Your task to perform on an android device: Show me productivity apps on the Play Store Image 0: 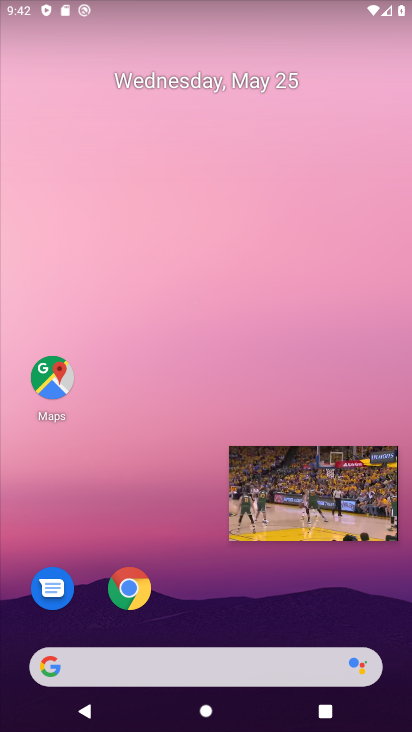
Step 0: drag from (180, 622) to (197, 74)
Your task to perform on an android device: Show me productivity apps on the Play Store Image 1: 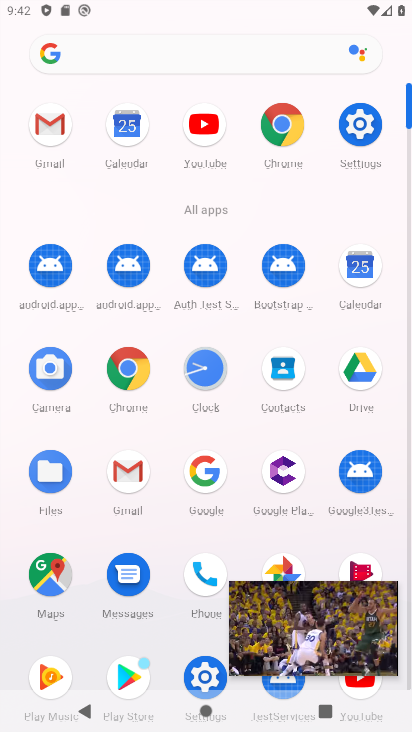
Step 1: click (126, 670)
Your task to perform on an android device: Show me productivity apps on the Play Store Image 2: 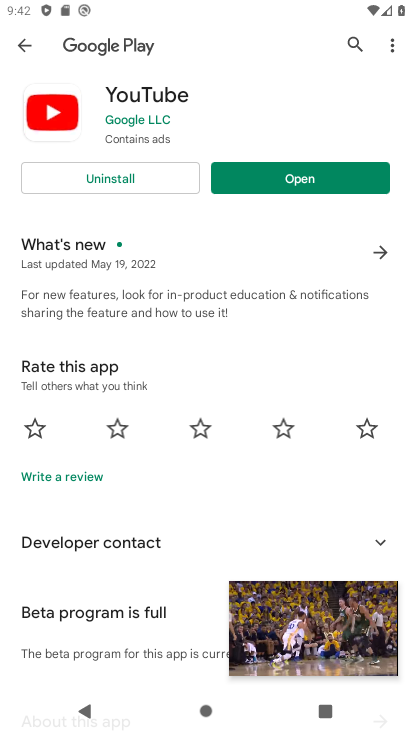
Step 2: click (33, 41)
Your task to perform on an android device: Show me productivity apps on the Play Store Image 3: 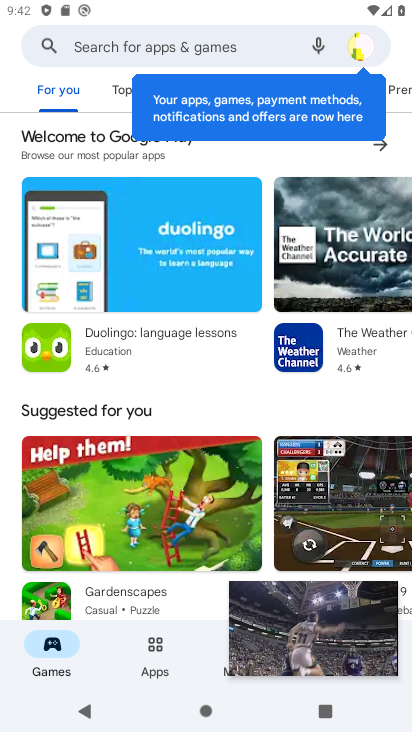
Step 3: click (155, 664)
Your task to perform on an android device: Show me productivity apps on the Play Store Image 4: 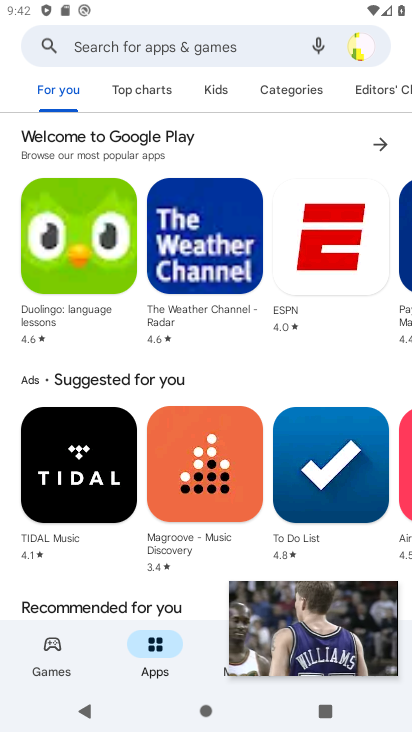
Step 4: click (300, 84)
Your task to perform on an android device: Show me productivity apps on the Play Store Image 5: 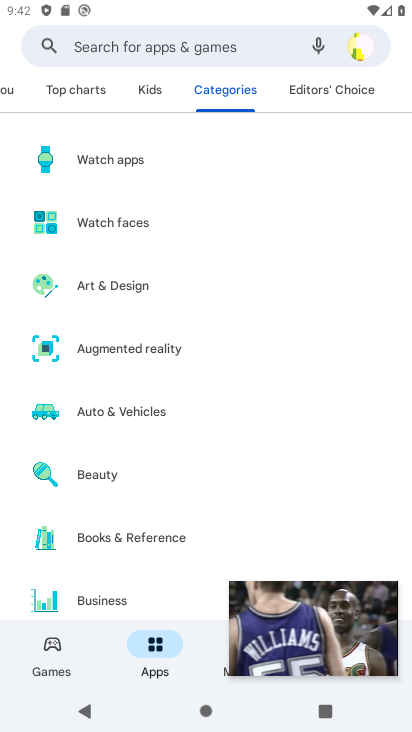
Step 5: drag from (157, 601) to (171, 181)
Your task to perform on an android device: Show me productivity apps on the Play Store Image 6: 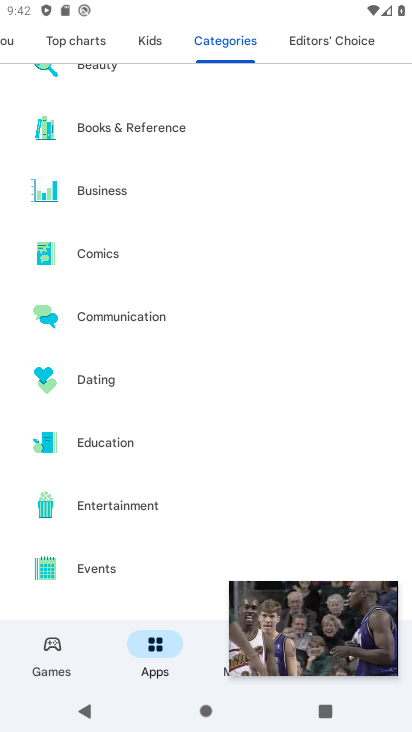
Step 6: drag from (163, 519) to (198, 176)
Your task to perform on an android device: Show me productivity apps on the Play Store Image 7: 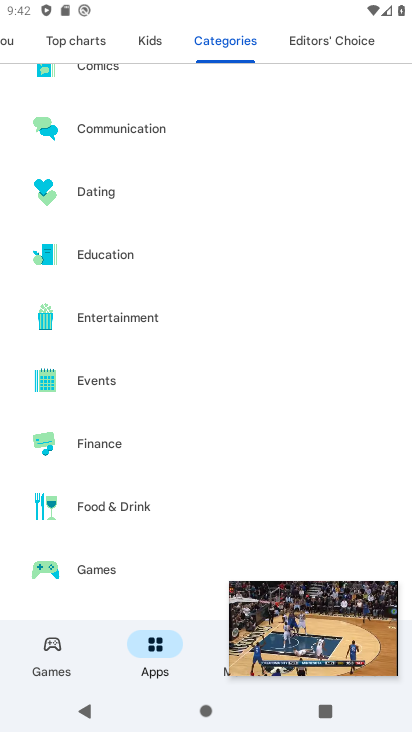
Step 7: drag from (122, 539) to (152, 111)
Your task to perform on an android device: Show me productivity apps on the Play Store Image 8: 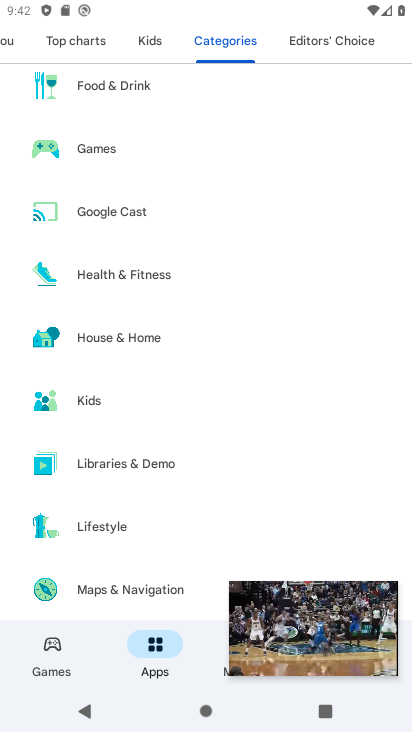
Step 8: drag from (104, 549) to (143, 230)
Your task to perform on an android device: Show me productivity apps on the Play Store Image 9: 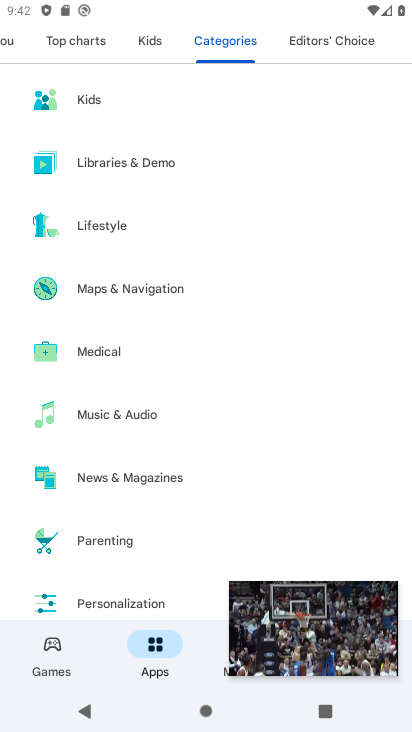
Step 9: drag from (99, 565) to (99, 248)
Your task to perform on an android device: Show me productivity apps on the Play Store Image 10: 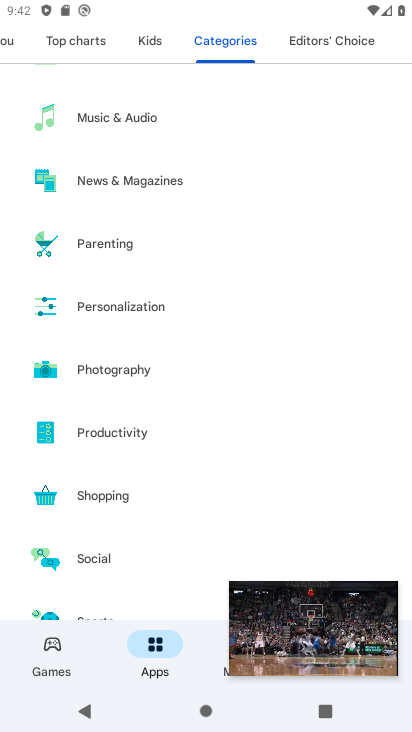
Step 10: click (121, 425)
Your task to perform on an android device: Show me productivity apps on the Play Store Image 11: 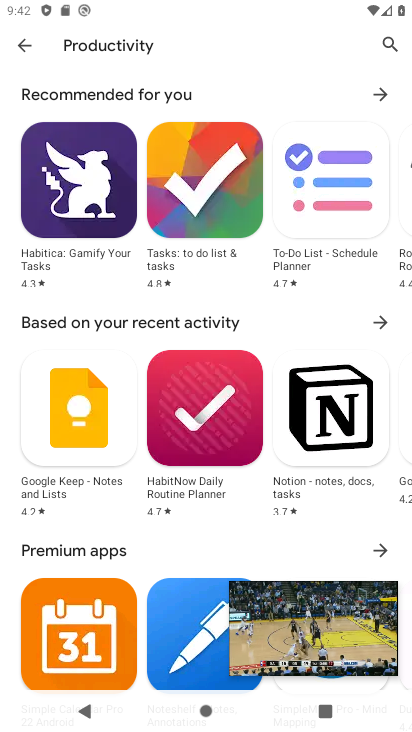
Step 11: task complete